Your task to perform on an android device: Open location settings Image 0: 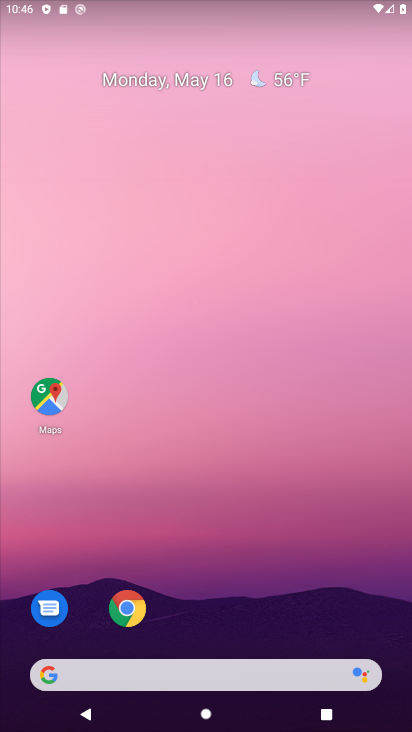
Step 0: drag from (385, 595) to (384, 205)
Your task to perform on an android device: Open location settings Image 1: 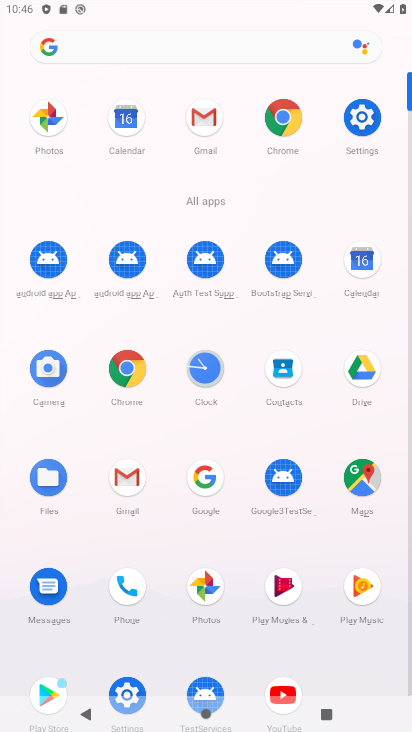
Step 1: click (354, 126)
Your task to perform on an android device: Open location settings Image 2: 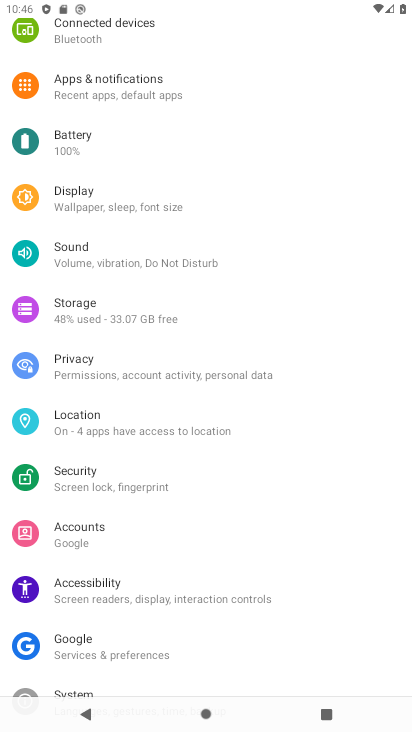
Step 2: click (223, 440)
Your task to perform on an android device: Open location settings Image 3: 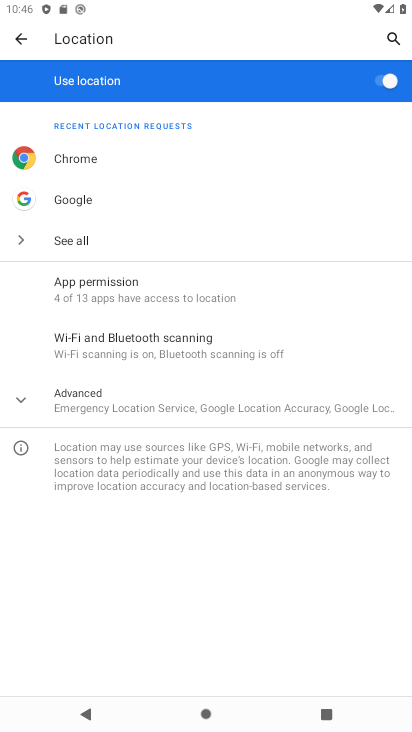
Step 3: click (230, 403)
Your task to perform on an android device: Open location settings Image 4: 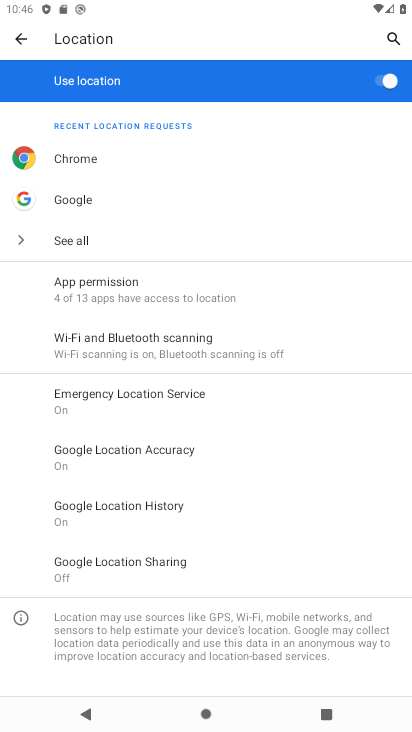
Step 4: task complete